Your task to perform on an android device: open the mobile data screen to see how much data has been used Image 0: 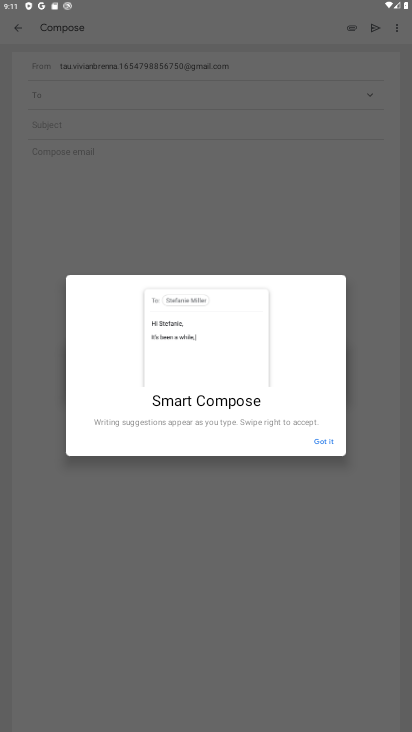
Step 0: press home button
Your task to perform on an android device: open the mobile data screen to see how much data has been used Image 1: 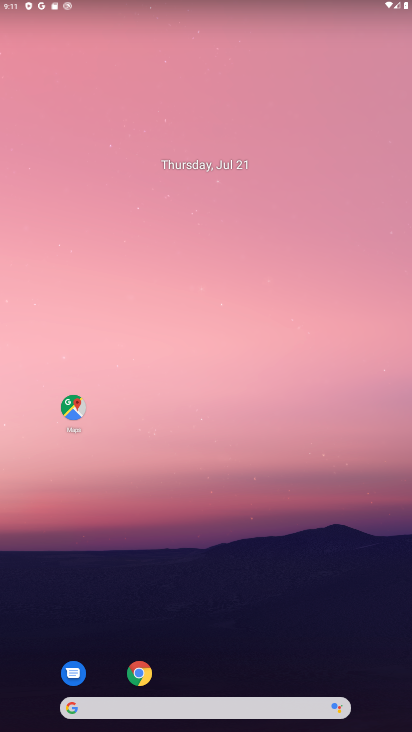
Step 1: drag from (209, 674) to (212, 92)
Your task to perform on an android device: open the mobile data screen to see how much data has been used Image 2: 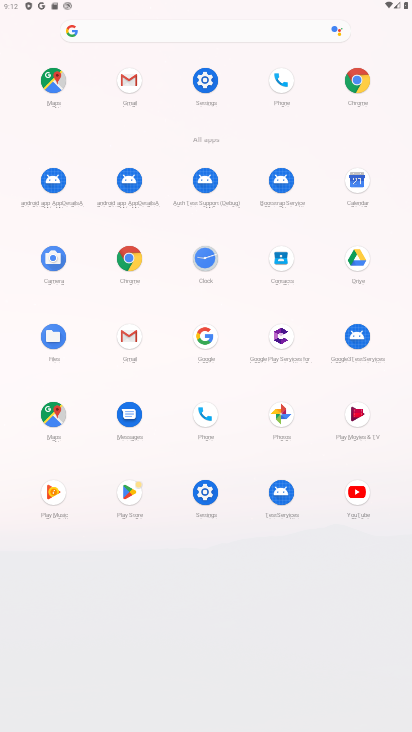
Step 2: click (206, 73)
Your task to perform on an android device: open the mobile data screen to see how much data has been used Image 3: 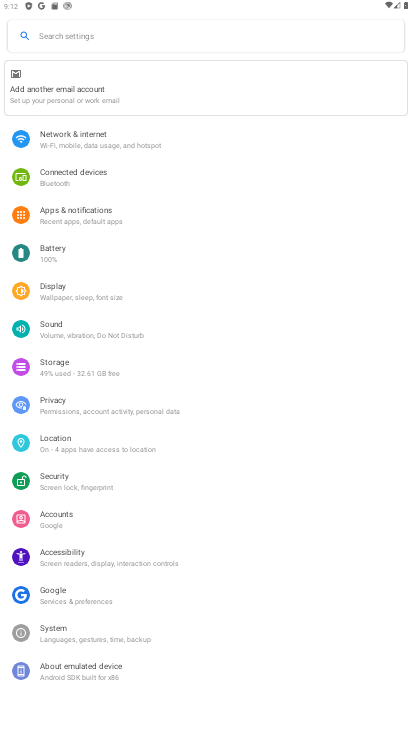
Step 3: click (113, 135)
Your task to perform on an android device: open the mobile data screen to see how much data has been used Image 4: 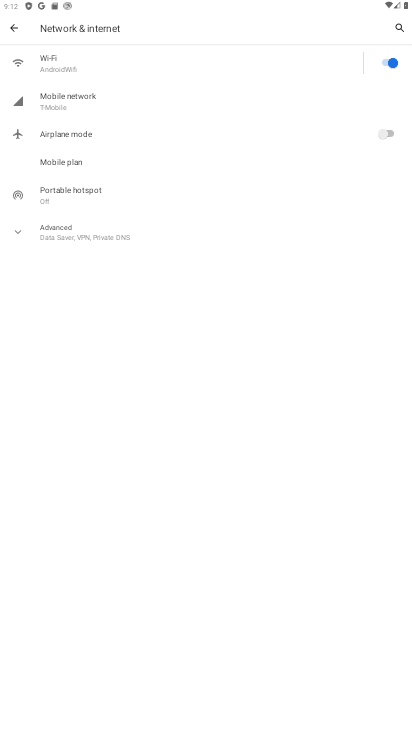
Step 4: click (89, 95)
Your task to perform on an android device: open the mobile data screen to see how much data has been used Image 5: 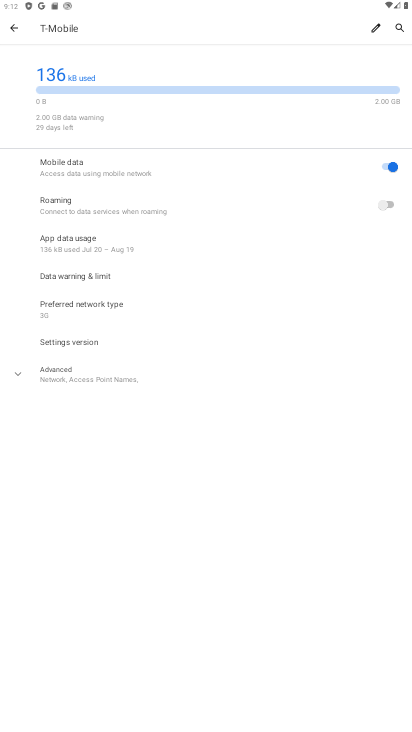
Step 5: click (104, 245)
Your task to perform on an android device: open the mobile data screen to see how much data has been used Image 6: 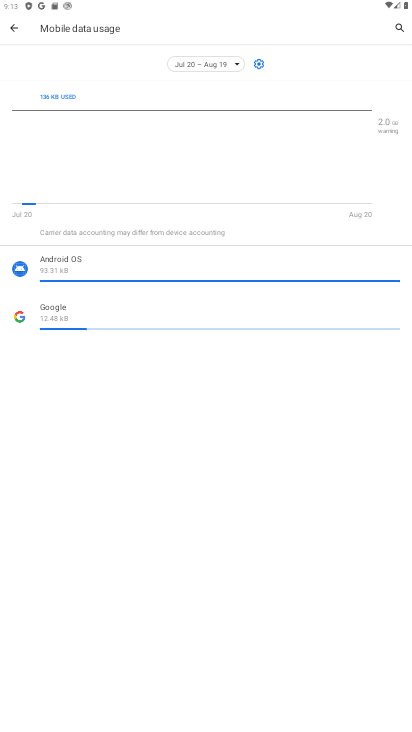
Step 6: task complete